Your task to perform on an android device: change alarm snooze length Image 0: 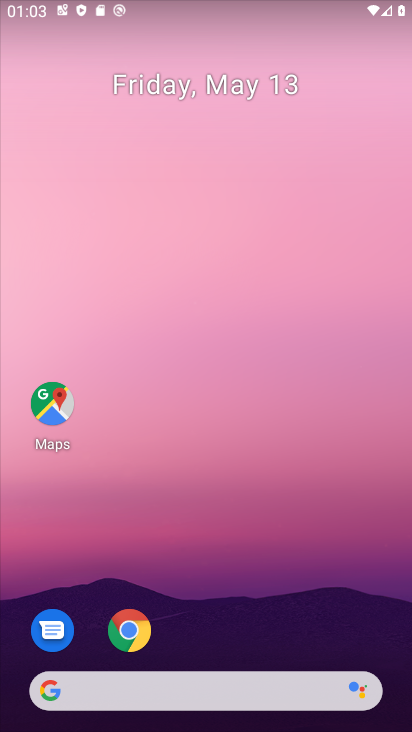
Step 0: drag from (286, 709) to (282, 357)
Your task to perform on an android device: change alarm snooze length Image 1: 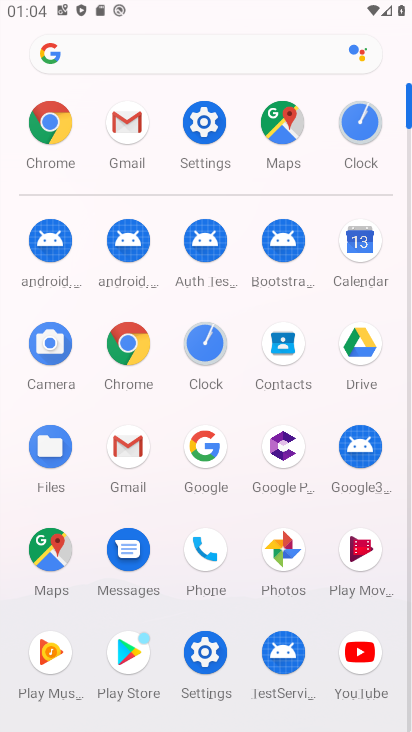
Step 1: click (353, 139)
Your task to perform on an android device: change alarm snooze length Image 2: 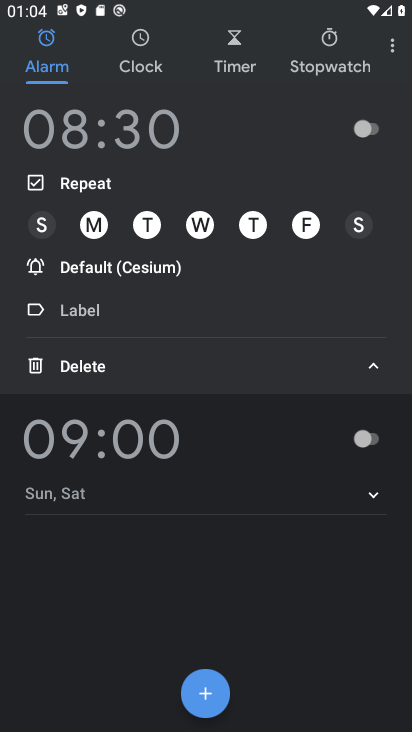
Step 2: click (380, 45)
Your task to perform on an android device: change alarm snooze length Image 3: 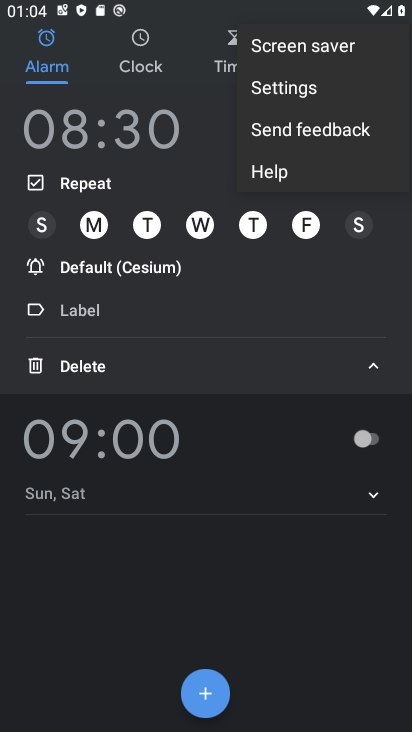
Step 3: click (291, 80)
Your task to perform on an android device: change alarm snooze length Image 4: 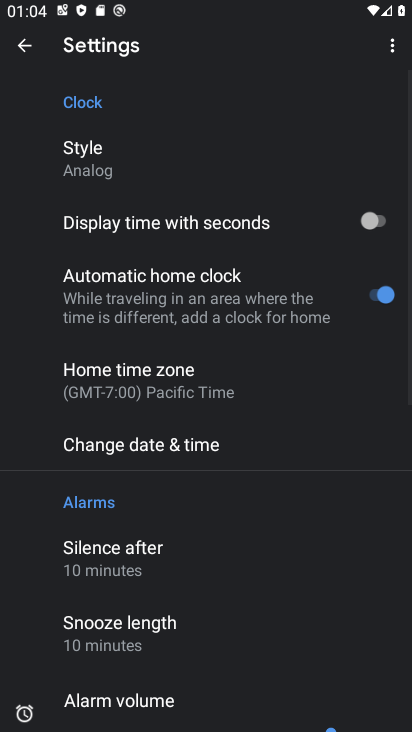
Step 4: click (129, 636)
Your task to perform on an android device: change alarm snooze length Image 5: 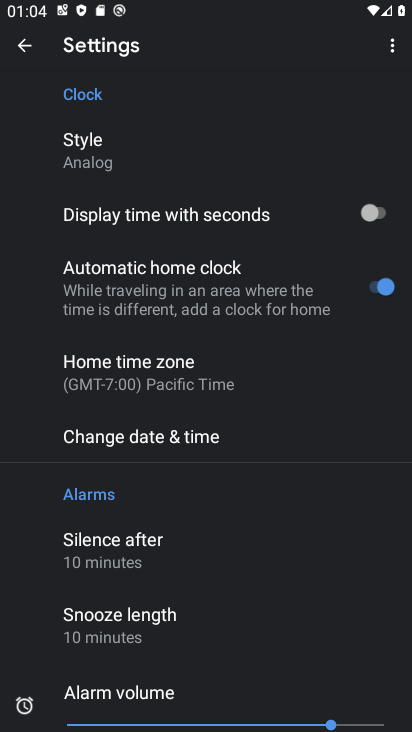
Step 5: click (137, 617)
Your task to perform on an android device: change alarm snooze length Image 6: 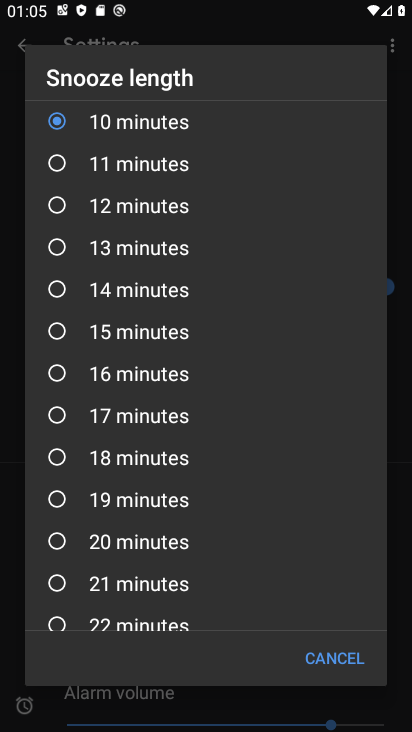
Step 6: drag from (113, 602) to (128, 251)
Your task to perform on an android device: change alarm snooze length Image 7: 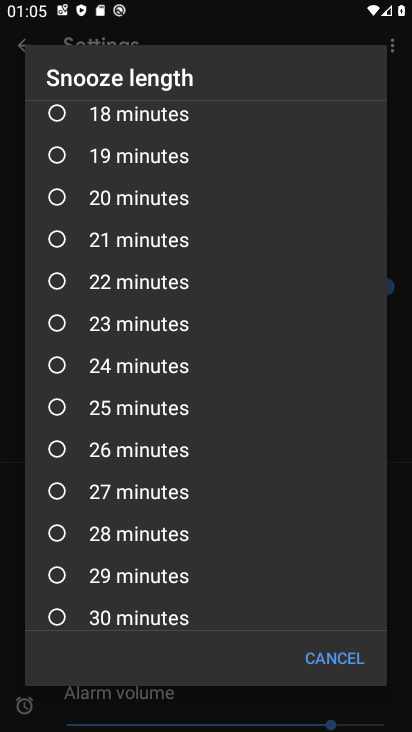
Step 7: click (92, 343)
Your task to perform on an android device: change alarm snooze length Image 8: 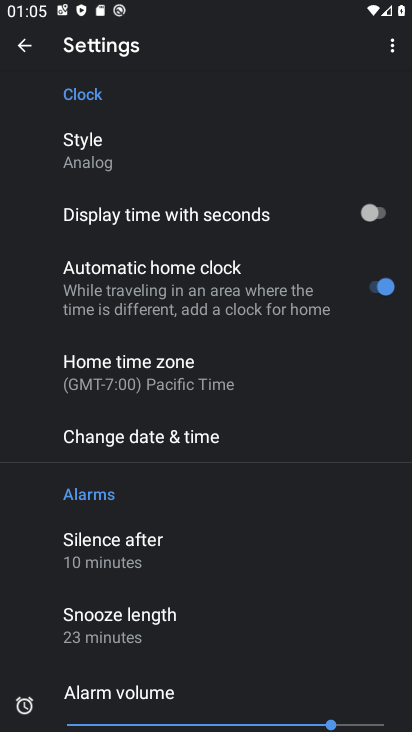
Step 8: task complete